Your task to perform on an android device: Go to wifi settings Image 0: 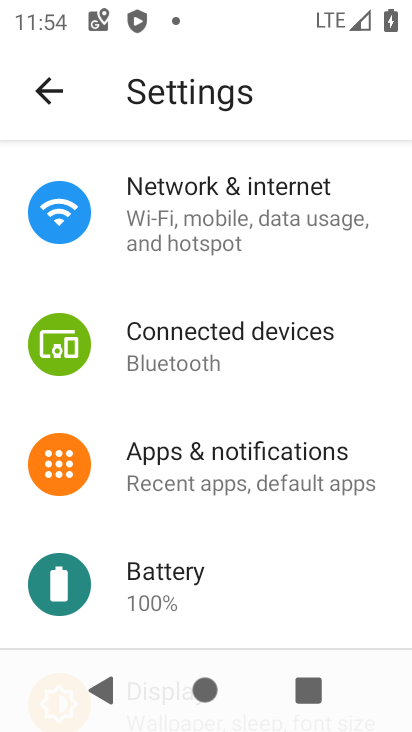
Step 0: click (158, 229)
Your task to perform on an android device: Go to wifi settings Image 1: 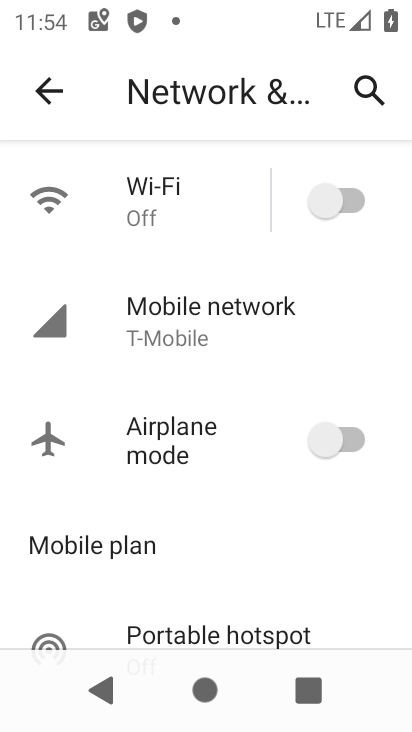
Step 1: click (158, 229)
Your task to perform on an android device: Go to wifi settings Image 2: 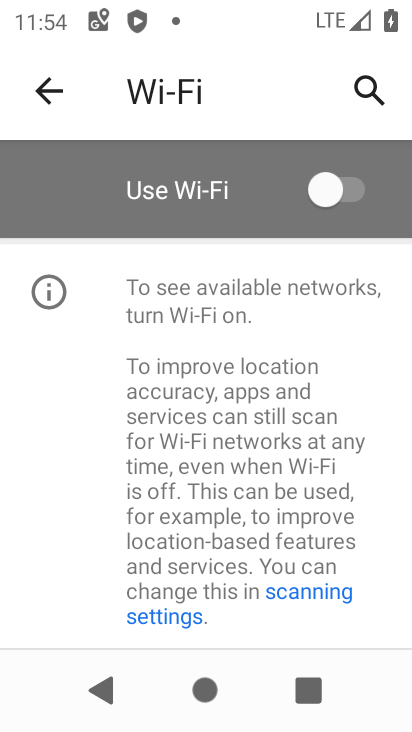
Step 2: task complete